Your task to perform on an android device: Open the Play Movies app and select the watchlist tab. Image 0: 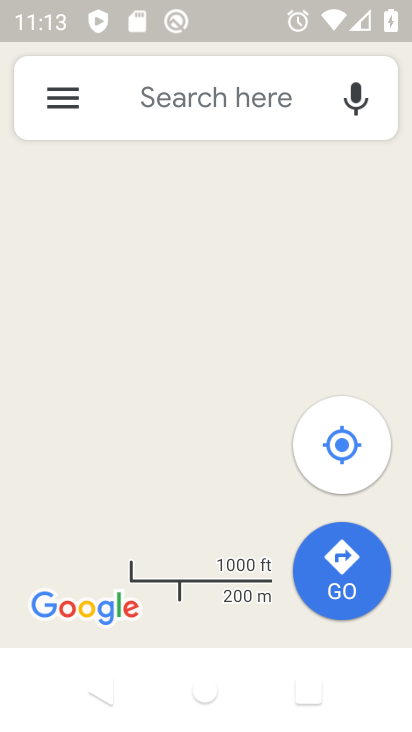
Step 0: press home button
Your task to perform on an android device: Open the Play Movies app and select the watchlist tab. Image 1: 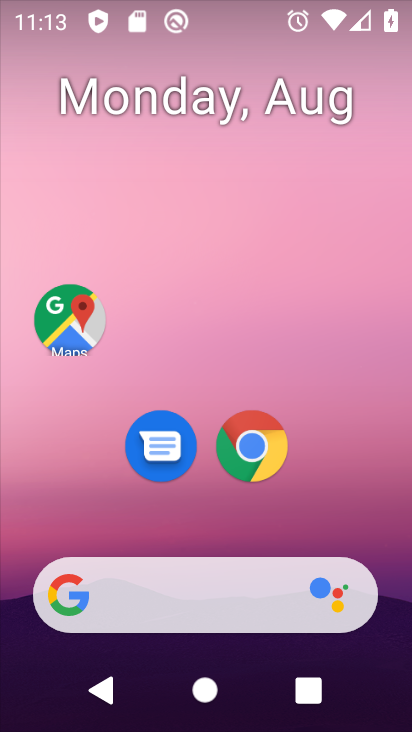
Step 1: drag from (210, 528) to (293, 29)
Your task to perform on an android device: Open the Play Movies app and select the watchlist tab. Image 2: 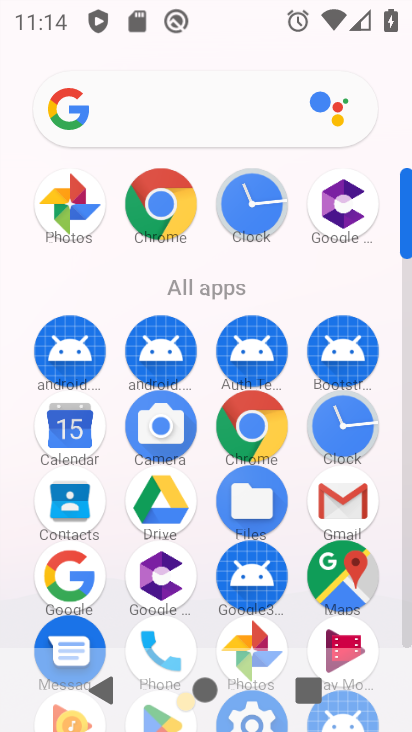
Step 2: drag from (204, 616) to (243, 264)
Your task to perform on an android device: Open the Play Movies app and select the watchlist tab. Image 3: 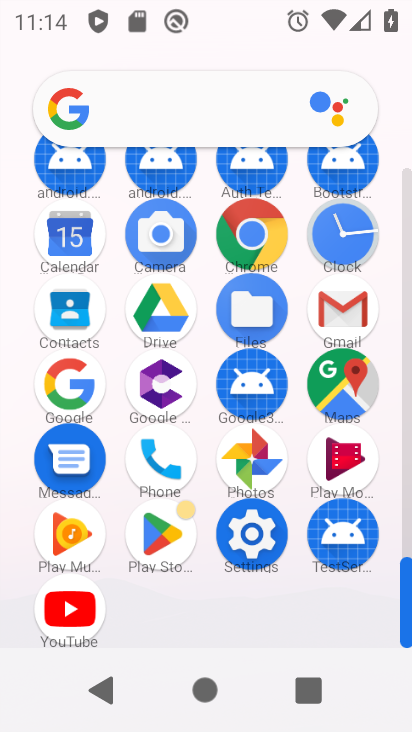
Step 3: click (345, 457)
Your task to perform on an android device: Open the Play Movies app and select the watchlist tab. Image 4: 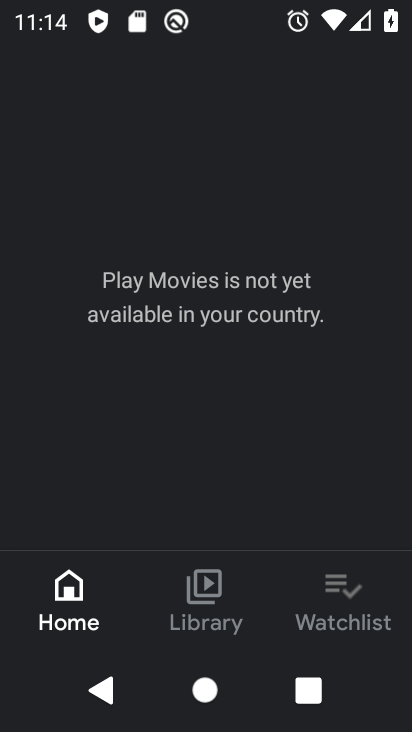
Step 4: click (332, 591)
Your task to perform on an android device: Open the Play Movies app and select the watchlist tab. Image 5: 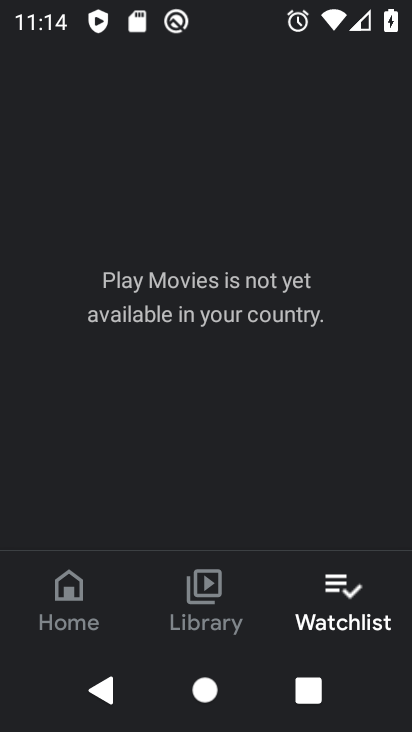
Step 5: task complete